Your task to perform on an android device: Open battery settings Image 0: 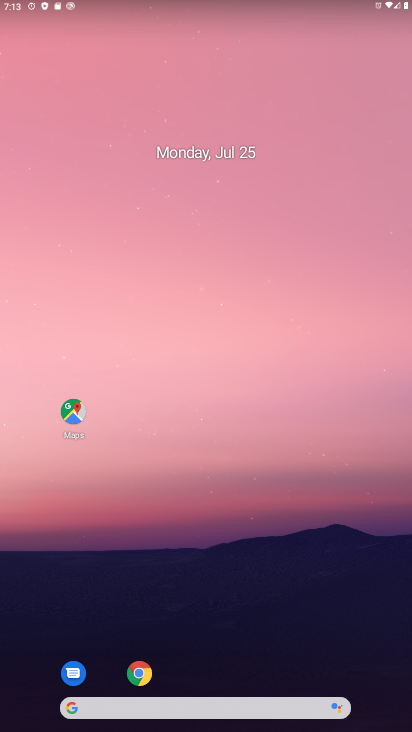
Step 0: drag from (267, 589) to (200, 50)
Your task to perform on an android device: Open battery settings Image 1: 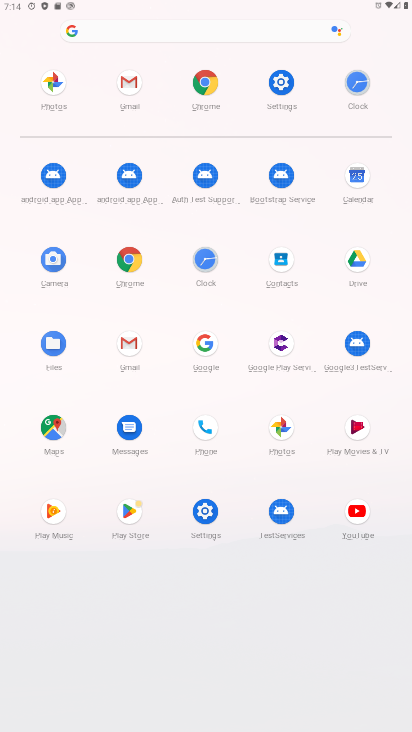
Step 1: click (200, 514)
Your task to perform on an android device: Open battery settings Image 2: 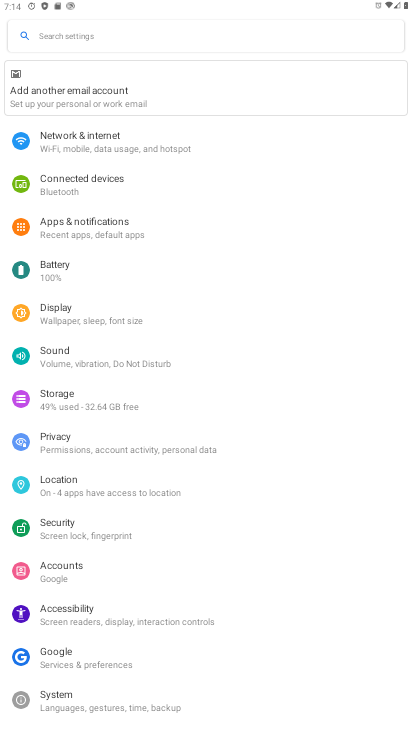
Step 2: click (64, 269)
Your task to perform on an android device: Open battery settings Image 3: 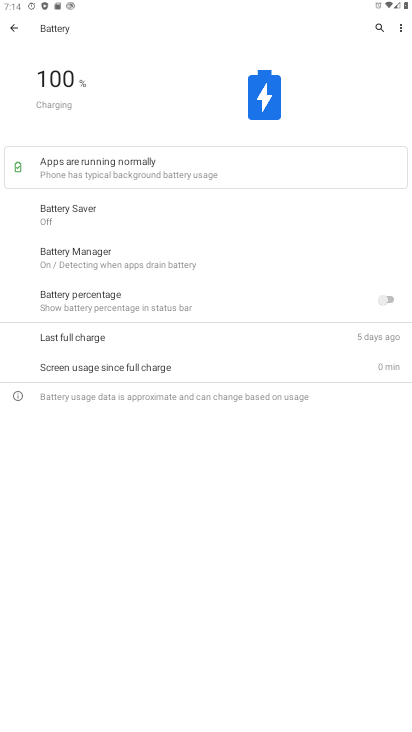
Step 3: task complete